Your task to perform on an android device: turn off location Image 0: 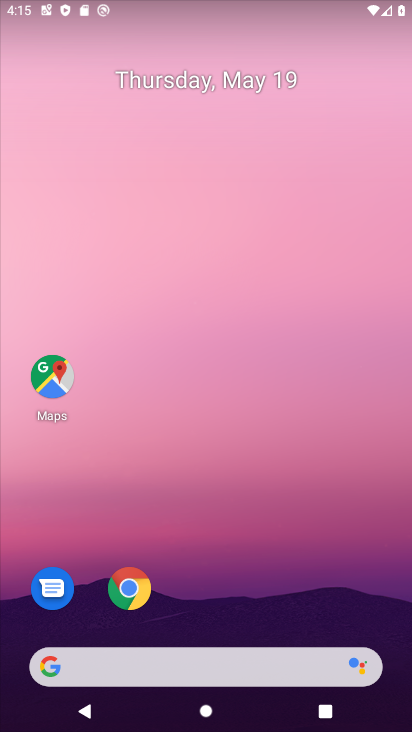
Step 0: drag from (192, 616) to (189, 121)
Your task to perform on an android device: turn off location Image 1: 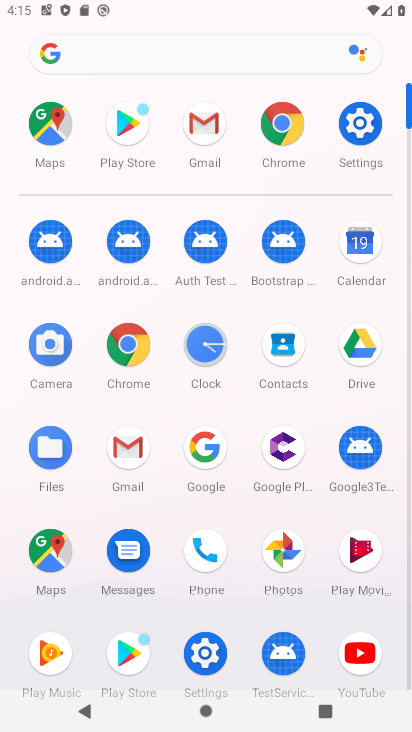
Step 1: click (357, 136)
Your task to perform on an android device: turn off location Image 2: 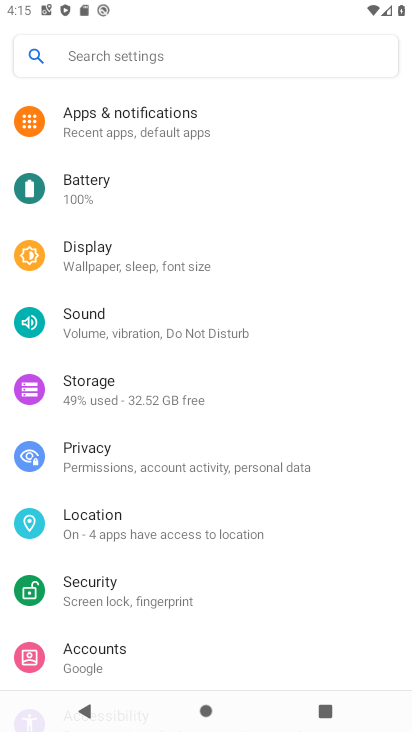
Step 2: drag from (62, 626) to (138, 278)
Your task to perform on an android device: turn off location Image 3: 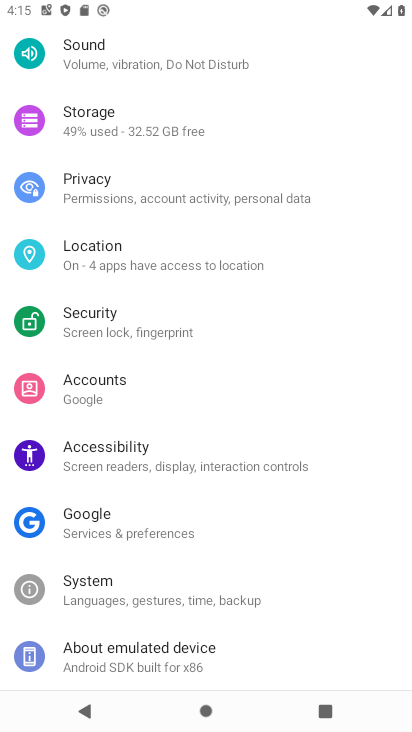
Step 3: click (185, 249)
Your task to perform on an android device: turn off location Image 4: 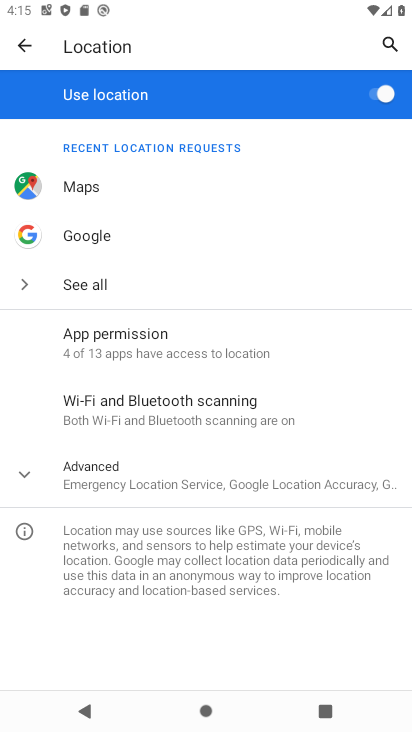
Step 4: click (375, 96)
Your task to perform on an android device: turn off location Image 5: 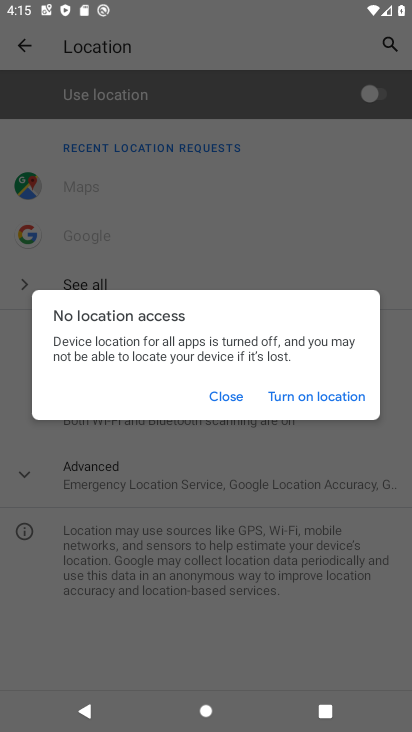
Step 5: task complete